Your task to perform on an android device: toggle data saver in the chrome app Image 0: 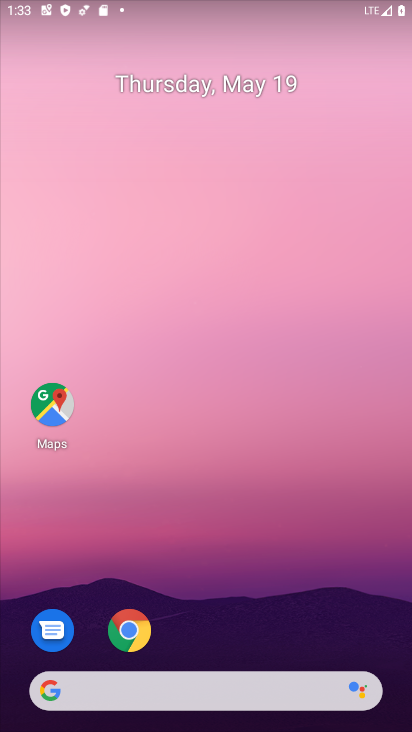
Step 0: drag from (217, 653) to (177, 3)
Your task to perform on an android device: toggle data saver in the chrome app Image 1: 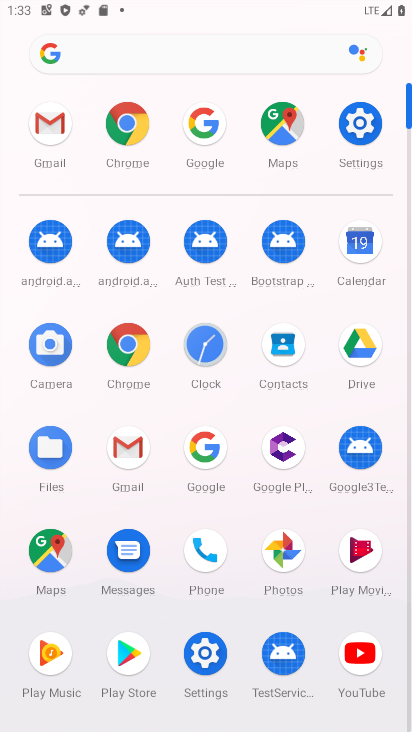
Step 1: click (124, 346)
Your task to perform on an android device: toggle data saver in the chrome app Image 2: 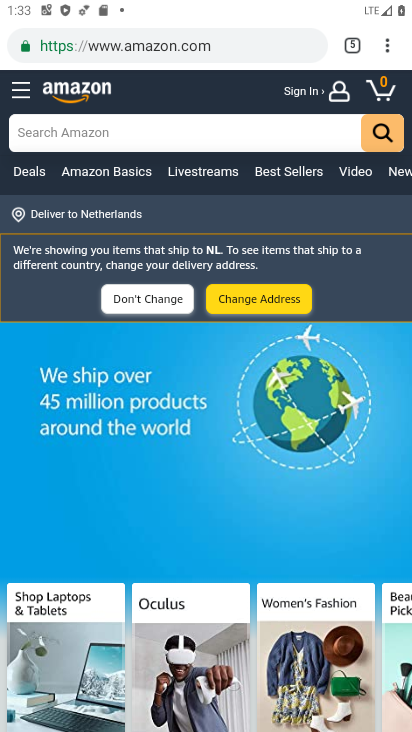
Step 2: click (384, 45)
Your task to perform on an android device: toggle data saver in the chrome app Image 3: 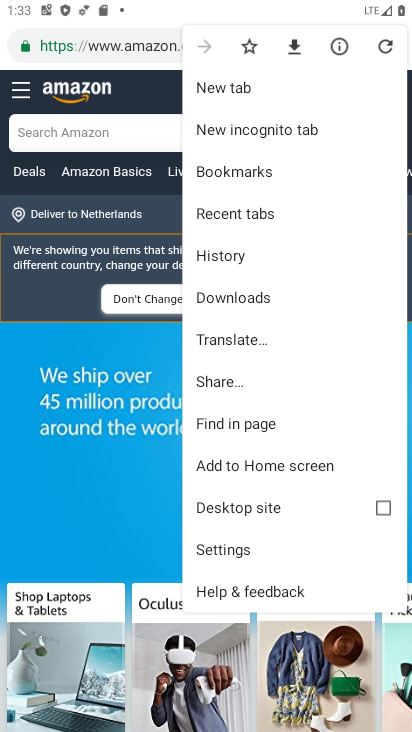
Step 3: click (235, 542)
Your task to perform on an android device: toggle data saver in the chrome app Image 4: 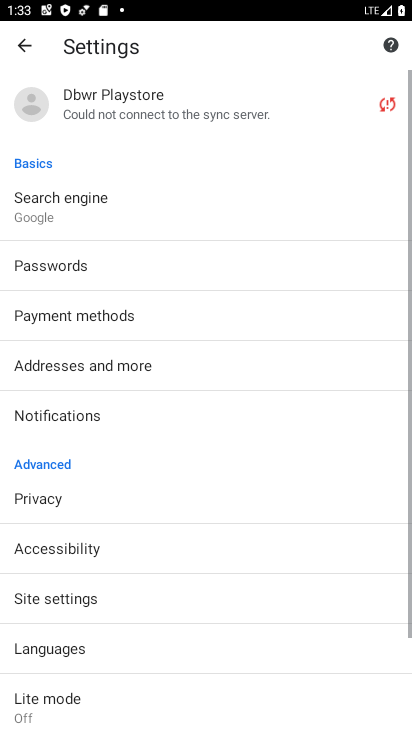
Step 4: drag from (235, 542) to (208, 332)
Your task to perform on an android device: toggle data saver in the chrome app Image 5: 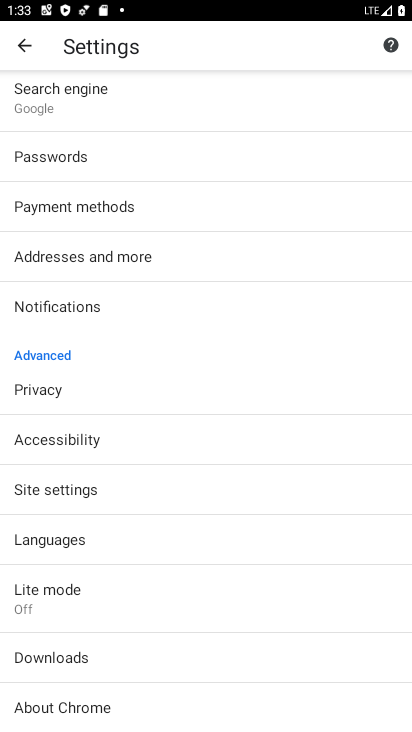
Step 5: click (52, 591)
Your task to perform on an android device: toggle data saver in the chrome app Image 6: 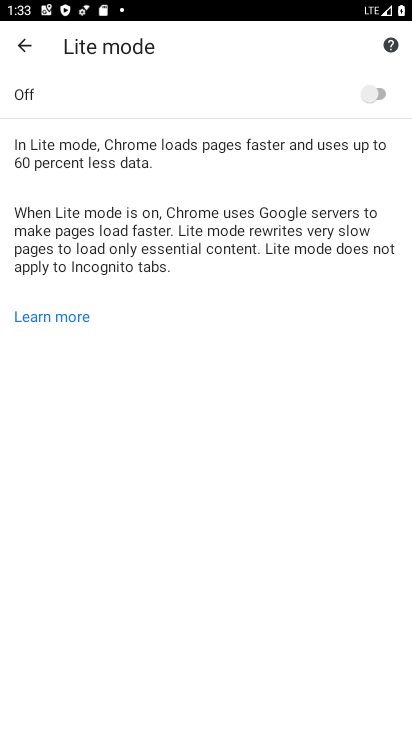
Step 6: click (363, 85)
Your task to perform on an android device: toggle data saver in the chrome app Image 7: 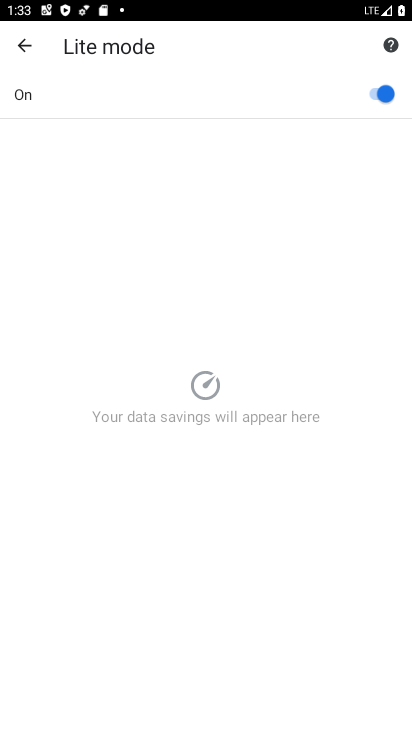
Step 7: task complete